Your task to perform on an android device: Add rayovac triple a to the cart on ebay.com, then select checkout. Image 0: 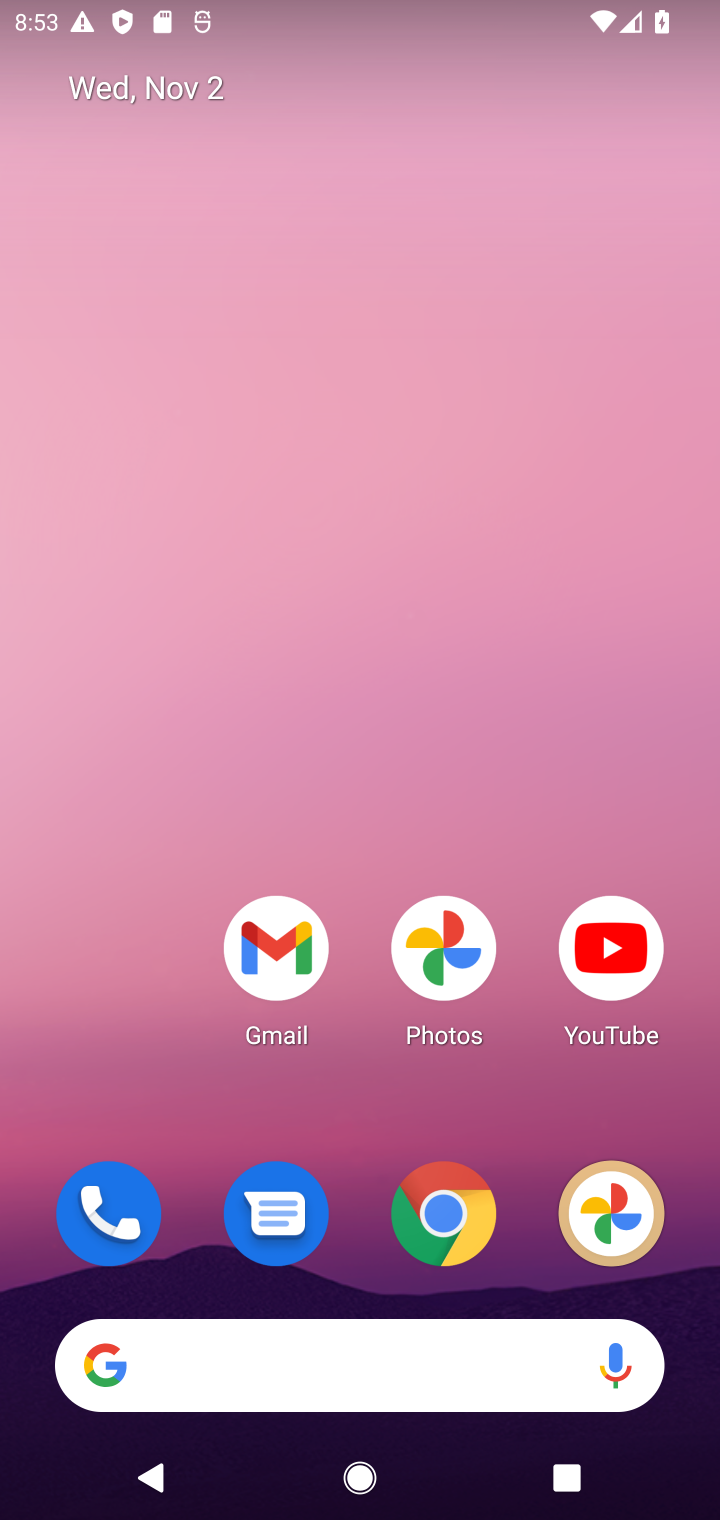
Step 0: click (449, 1231)
Your task to perform on an android device: Add rayovac triple a to the cart on ebay.com, then select checkout. Image 1: 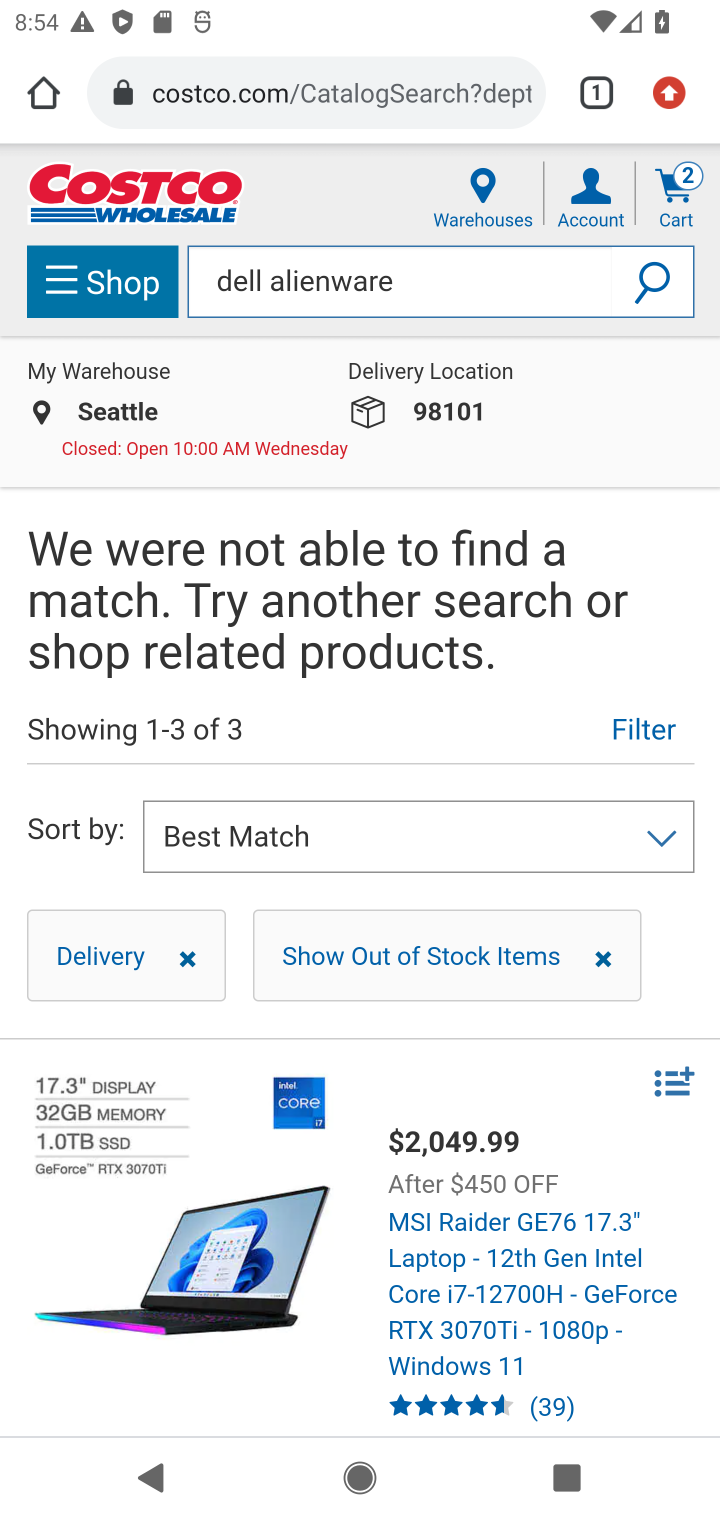
Step 1: click (237, 96)
Your task to perform on an android device: Add rayovac triple a to the cart on ebay.com, then select checkout. Image 2: 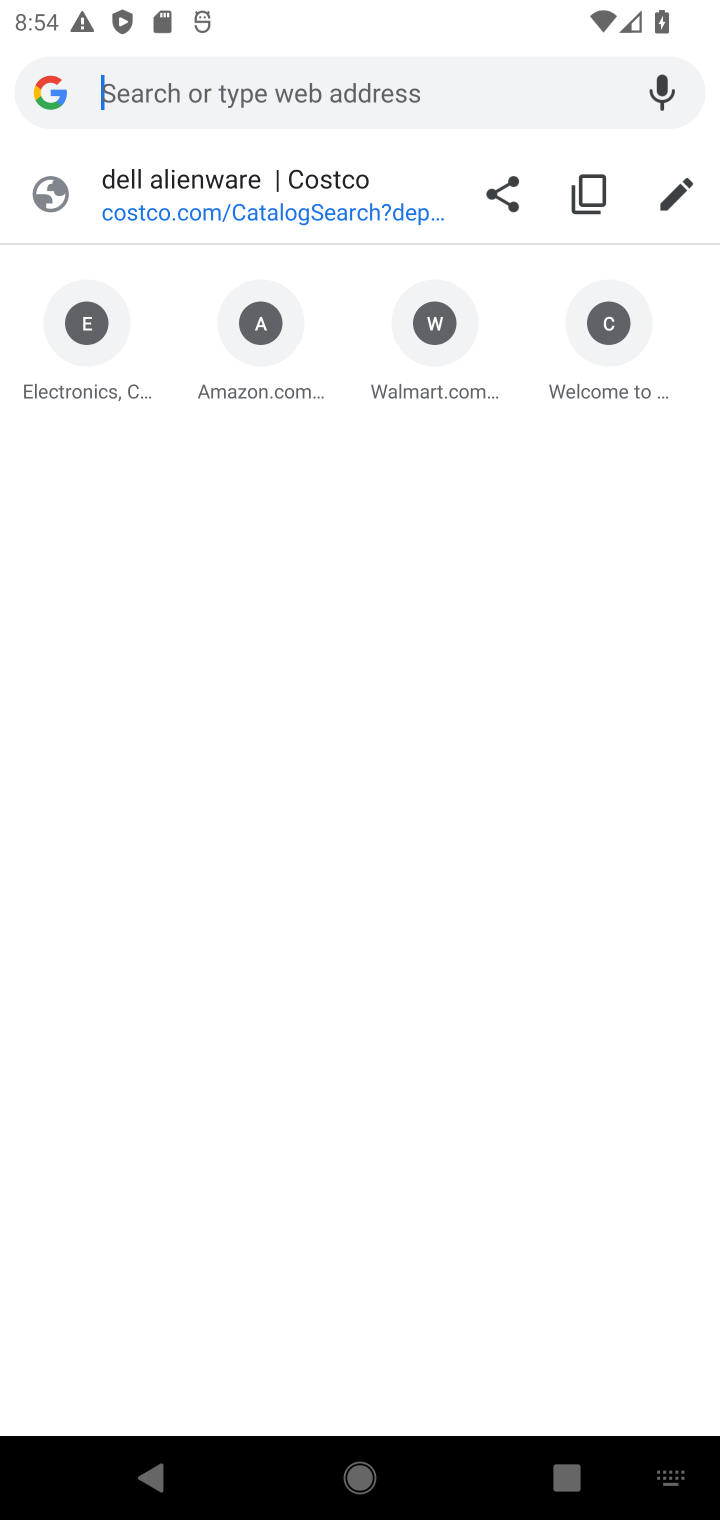
Step 2: type "ebay.com"
Your task to perform on an android device: Add rayovac triple a to the cart on ebay.com, then select checkout. Image 3: 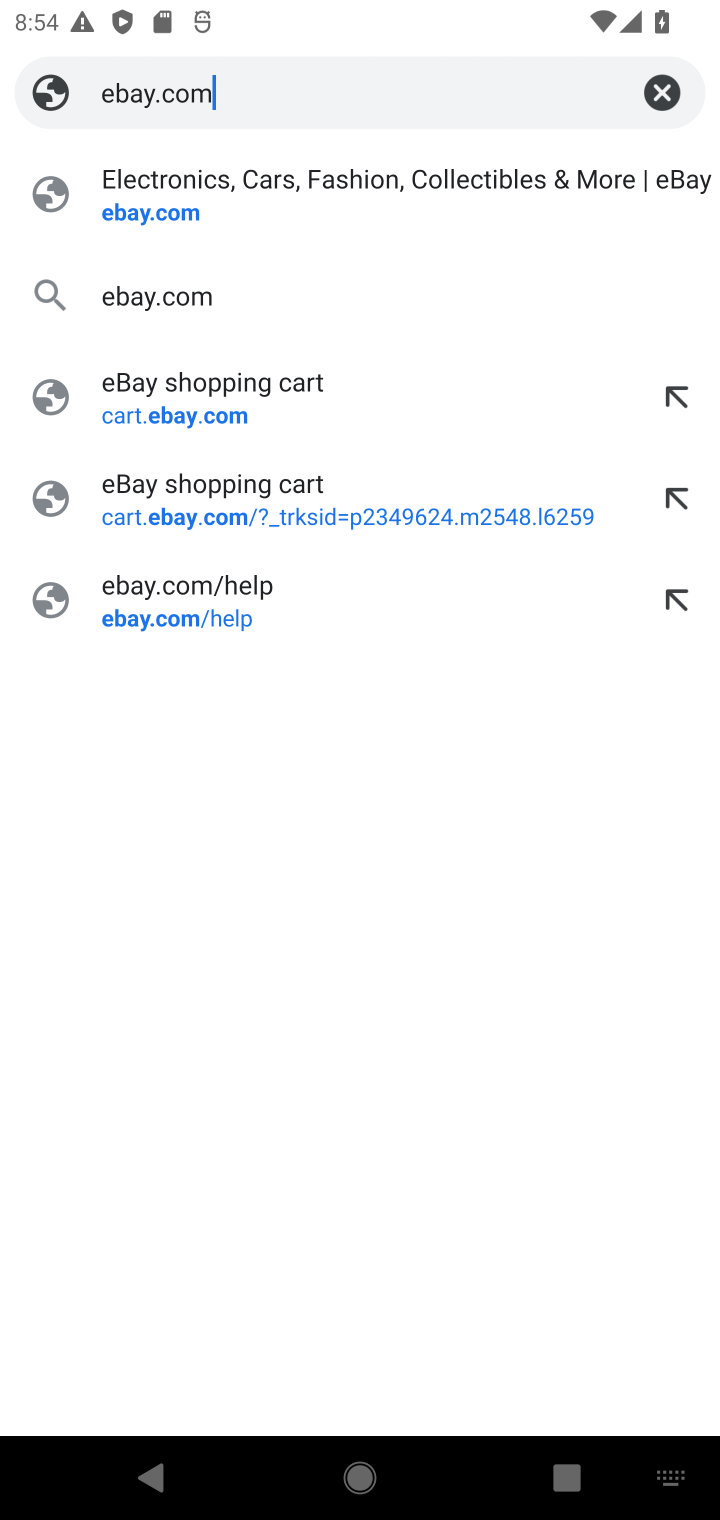
Step 3: click (147, 225)
Your task to perform on an android device: Add rayovac triple a to the cart on ebay.com, then select checkout. Image 4: 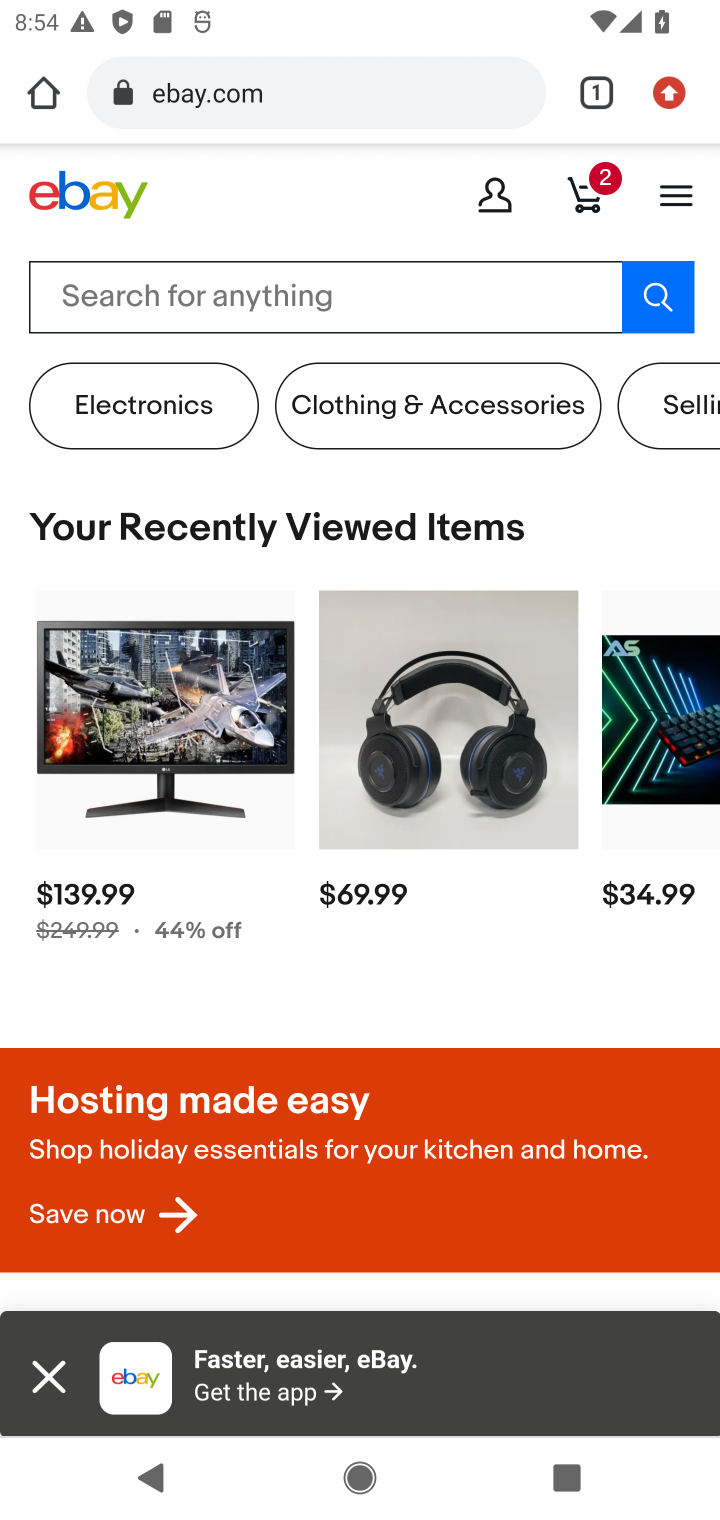
Step 4: click (140, 300)
Your task to perform on an android device: Add rayovac triple a to the cart on ebay.com, then select checkout. Image 5: 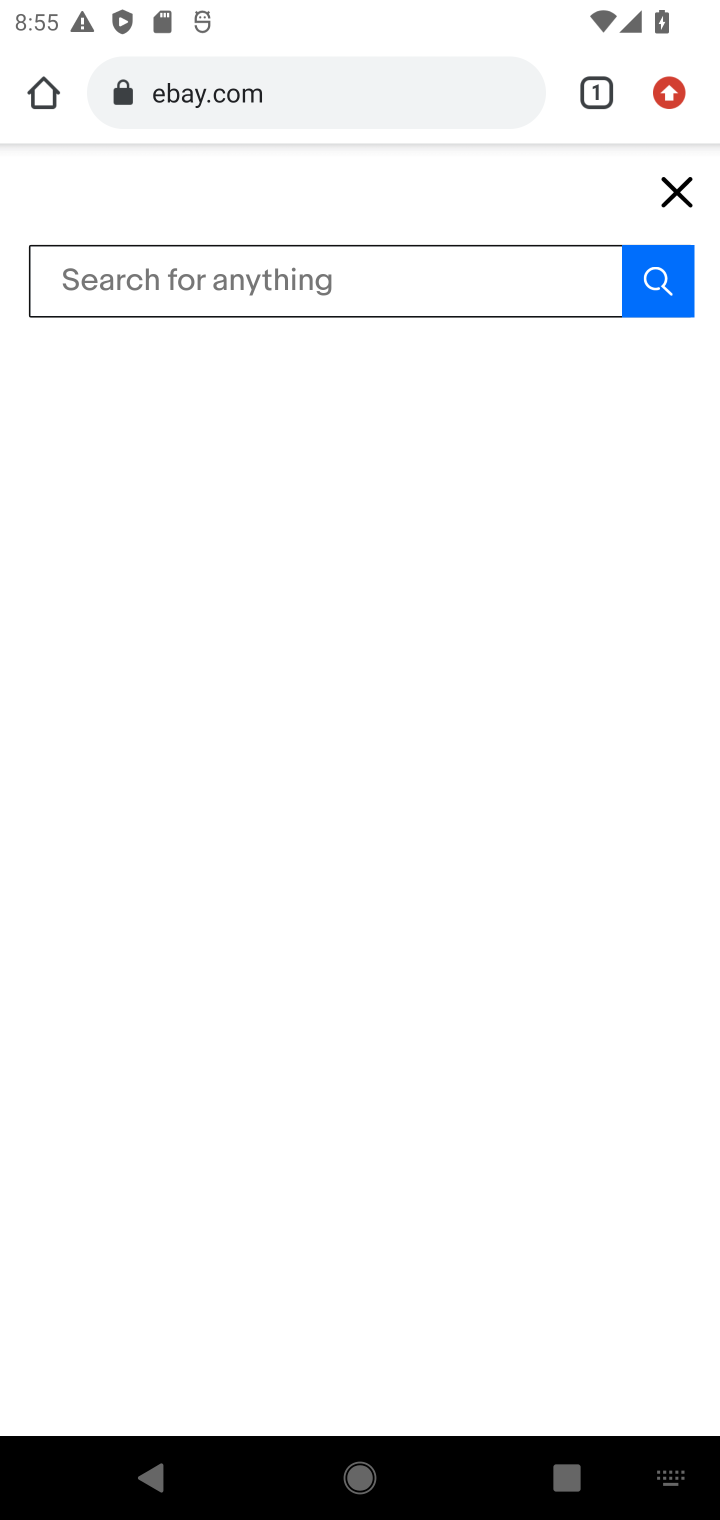
Step 5: type " rayovac triple a"
Your task to perform on an android device: Add rayovac triple a to the cart on ebay.com, then select checkout. Image 6: 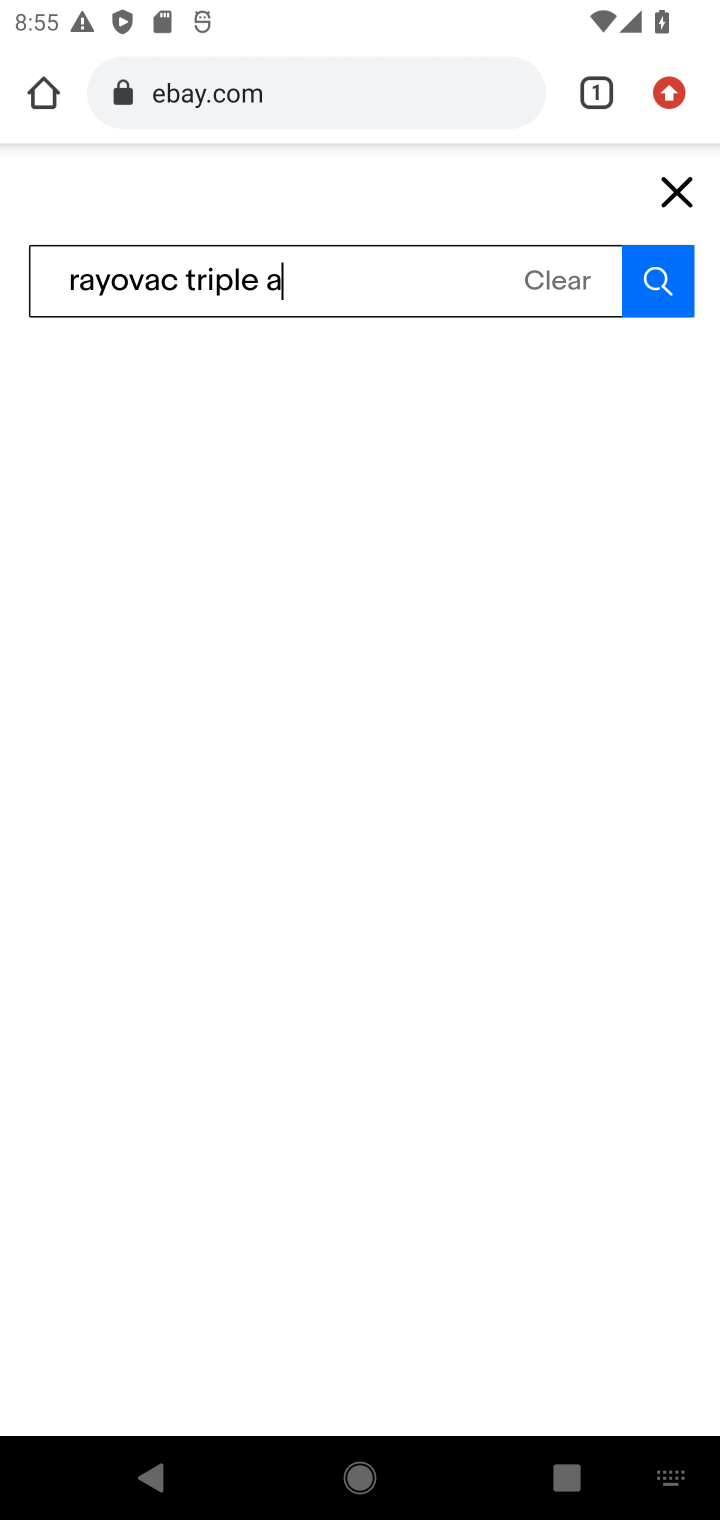
Step 6: click (648, 288)
Your task to perform on an android device: Add rayovac triple a to the cart on ebay.com, then select checkout. Image 7: 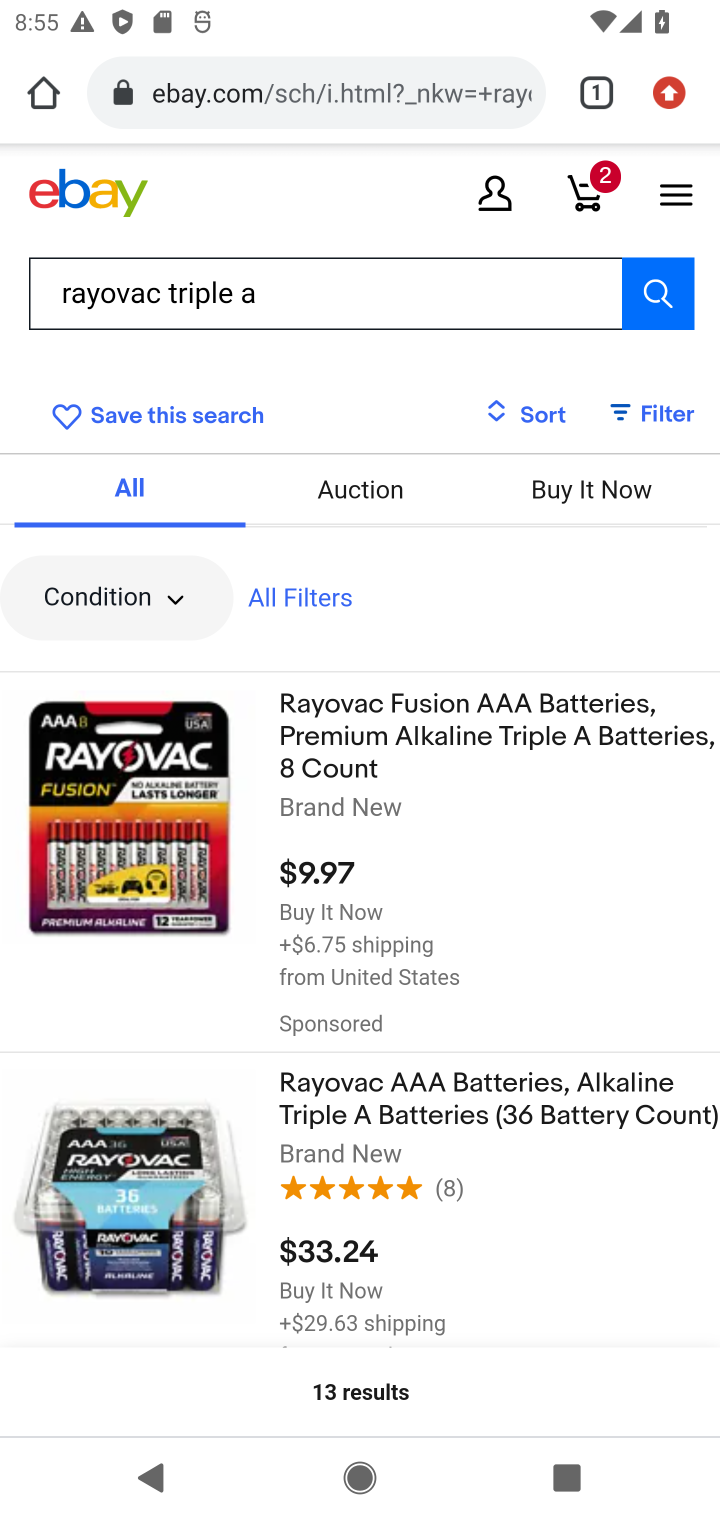
Step 7: click (142, 1231)
Your task to perform on an android device: Add rayovac triple a to the cart on ebay.com, then select checkout. Image 8: 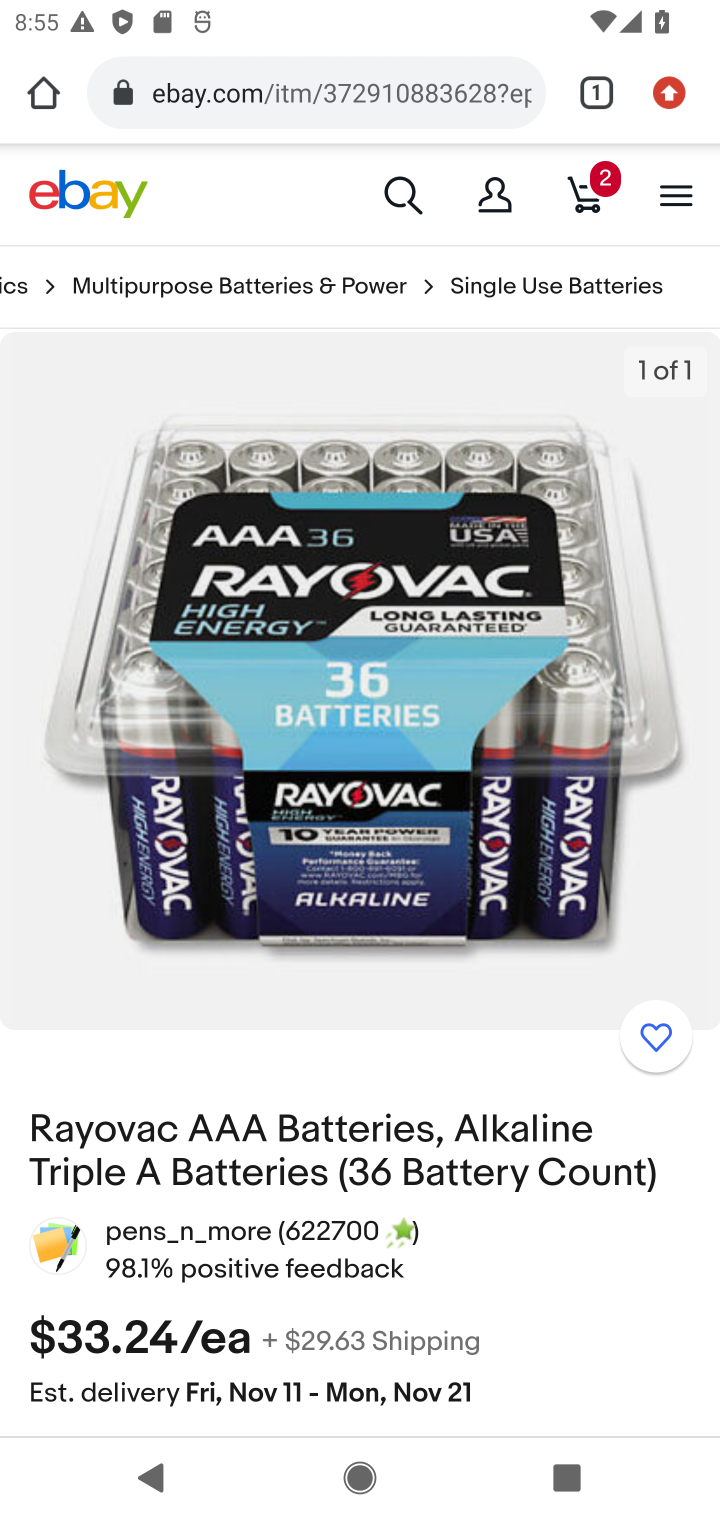
Step 8: drag from (359, 1226) to (433, 279)
Your task to perform on an android device: Add rayovac triple a to the cart on ebay.com, then select checkout. Image 9: 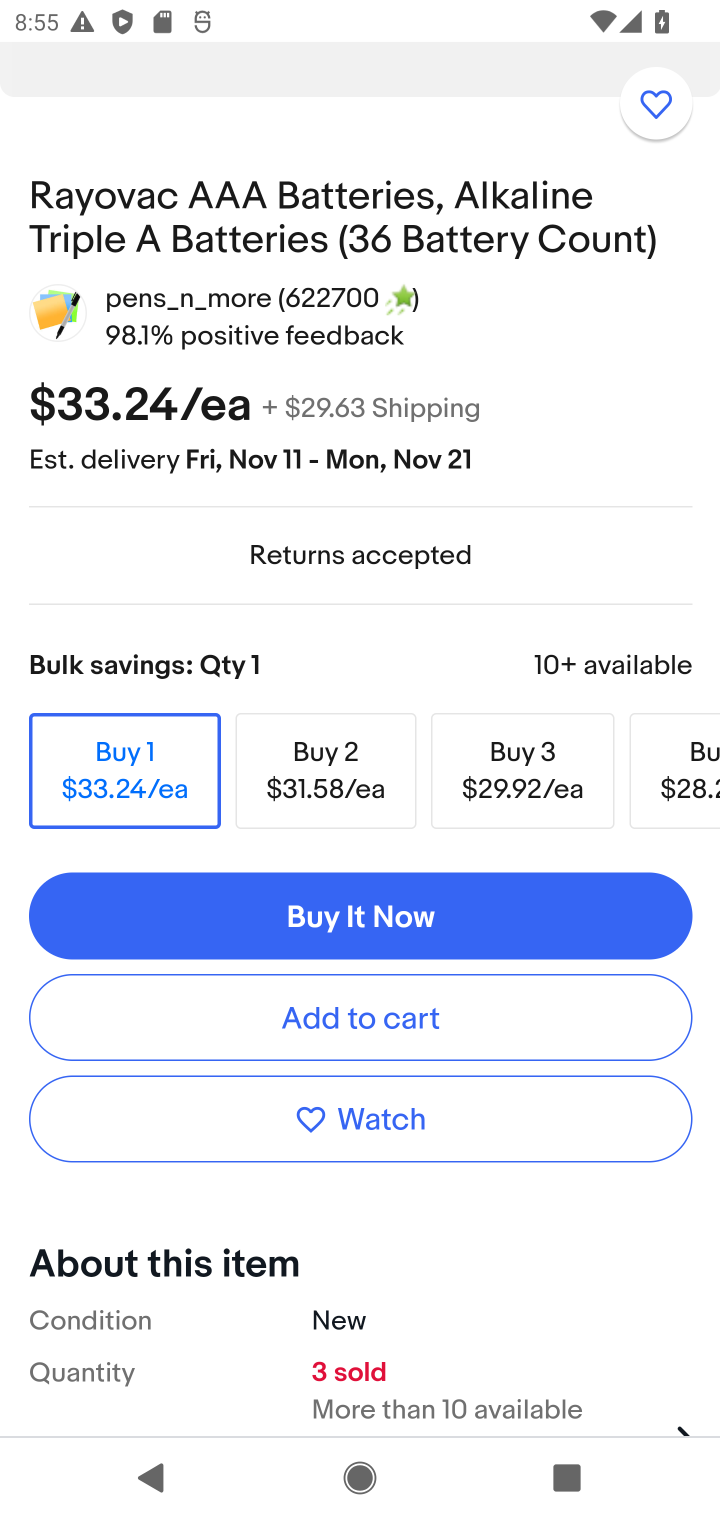
Step 9: click (304, 1023)
Your task to perform on an android device: Add rayovac triple a to the cart on ebay.com, then select checkout. Image 10: 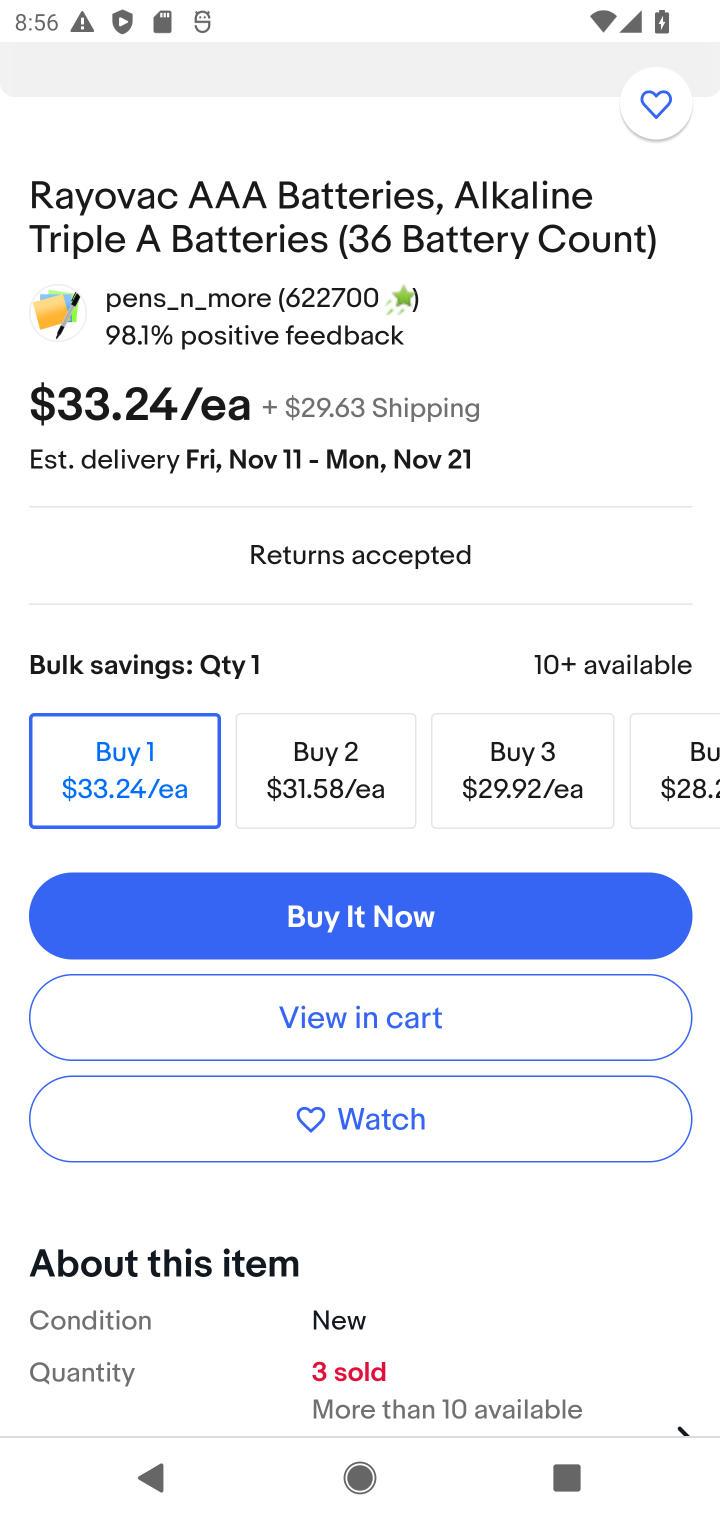
Step 10: click (346, 1029)
Your task to perform on an android device: Add rayovac triple a to the cart on ebay.com, then select checkout. Image 11: 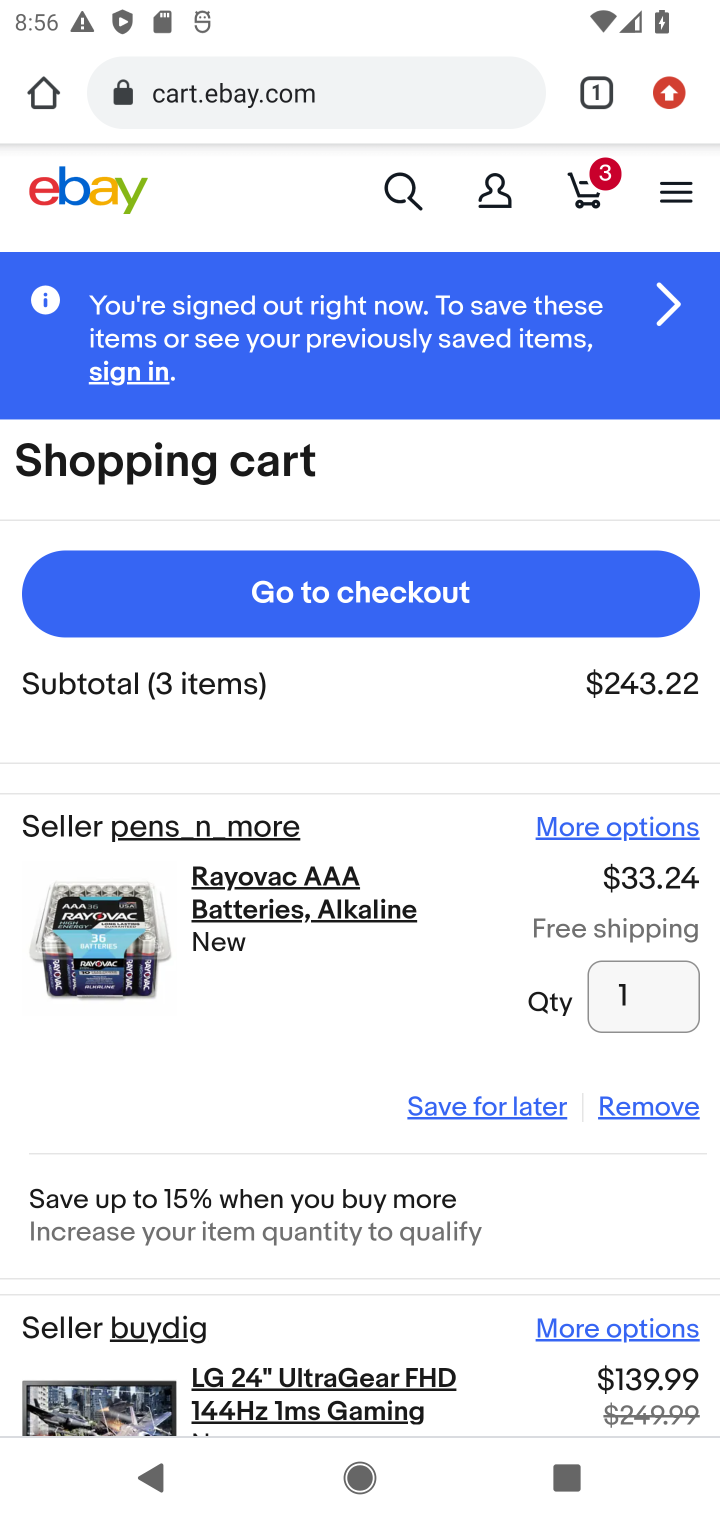
Step 11: click (317, 599)
Your task to perform on an android device: Add rayovac triple a to the cart on ebay.com, then select checkout. Image 12: 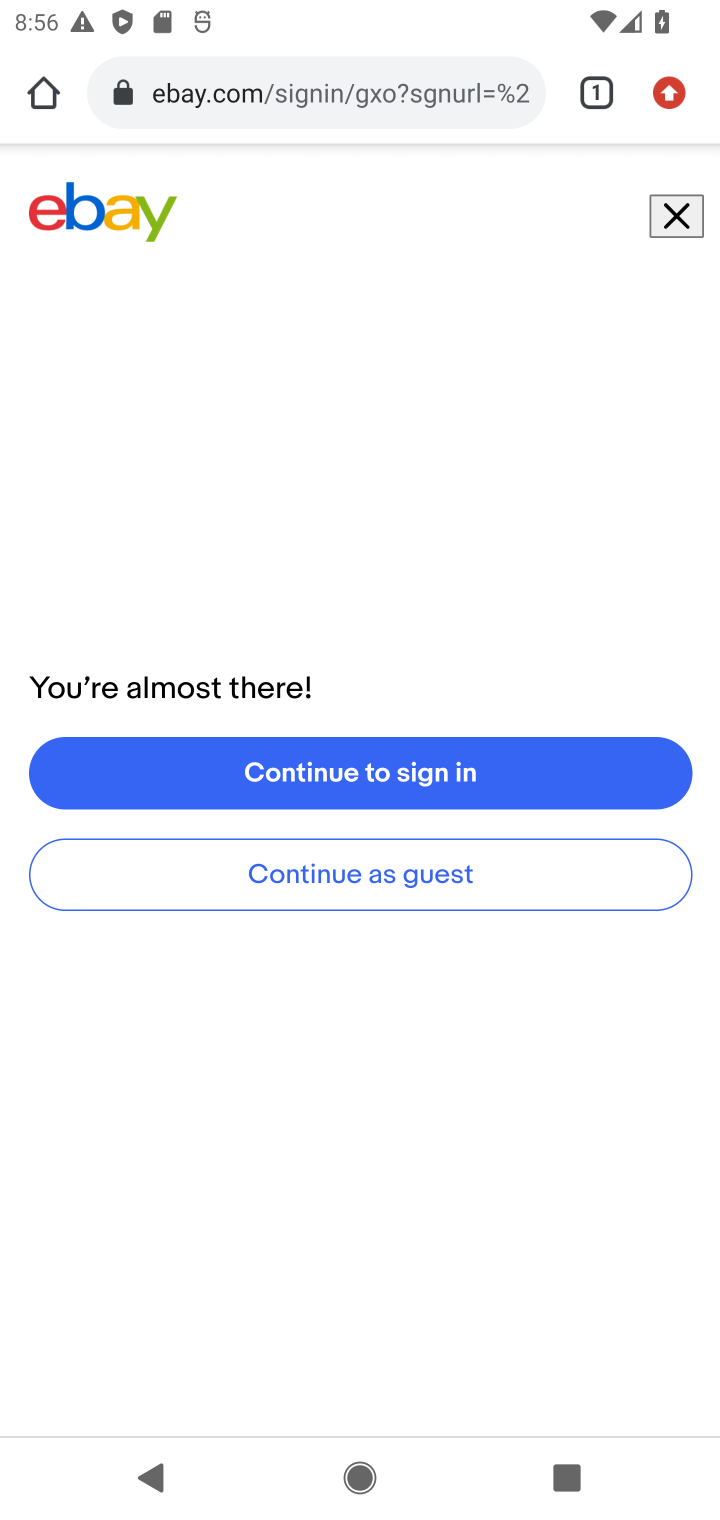
Step 12: task complete